Your task to perform on an android device: Go to calendar. Show me events next week Image 0: 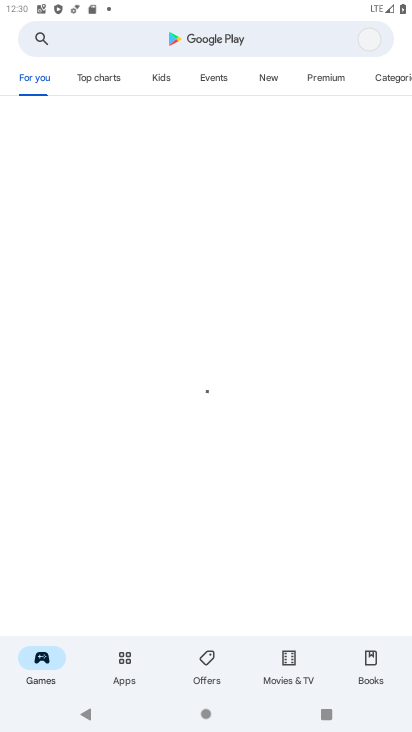
Step 0: press home button
Your task to perform on an android device: Go to calendar. Show me events next week Image 1: 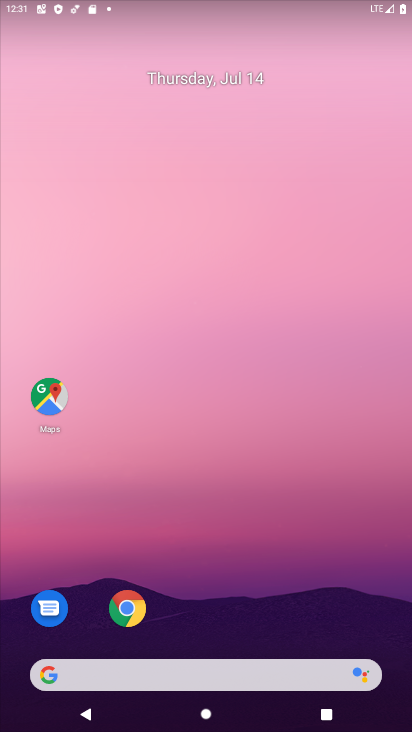
Step 1: drag from (0, 662) to (294, 49)
Your task to perform on an android device: Go to calendar. Show me events next week Image 2: 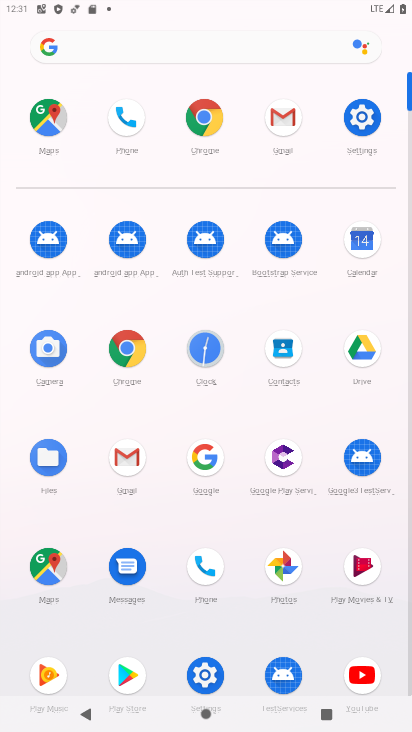
Step 2: click (368, 249)
Your task to perform on an android device: Go to calendar. Show me events next week Image 3: 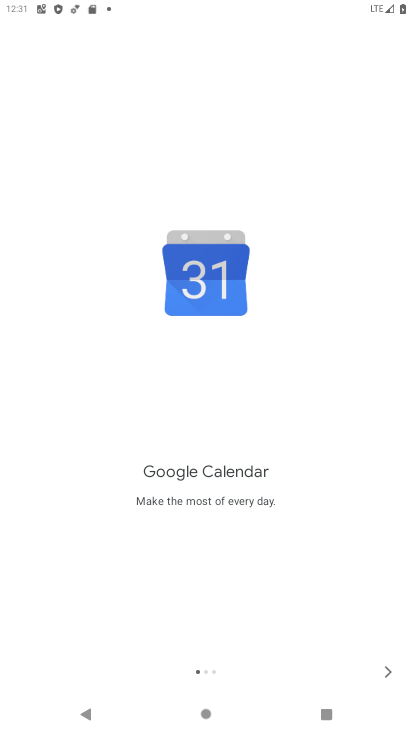
Step 3: click (384, 672)
Your task to perform on an android device: Go to calendar. Show me events next week Image 4: 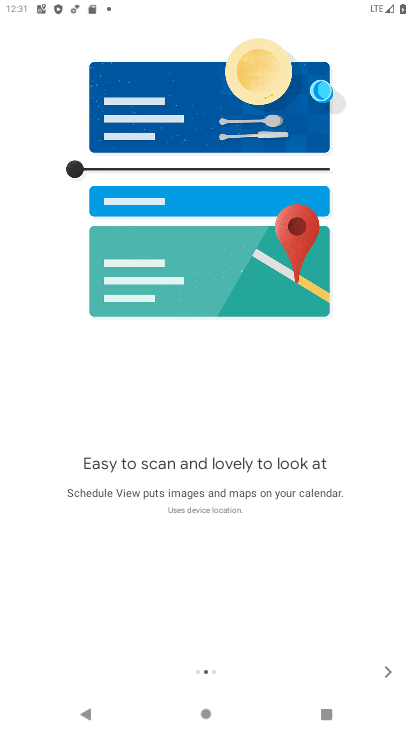
Step 4: click (384, 672)
Your task to perform on an android device: Go to calendar. Show me events next week Image 5: 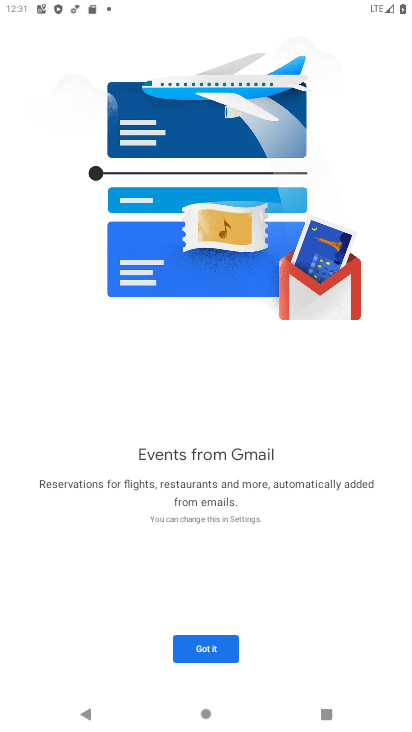
Step 5: click (225, 640)
Your task to perform on an android device: Go to calendar. Show me events next week Image 6: 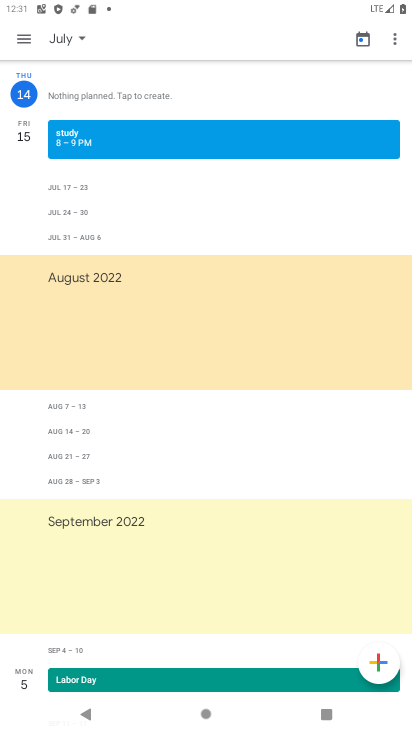
Step 6: click (82, 40)
Your task to perform on an android device: Go to calendar. Show me events next week Image 7: 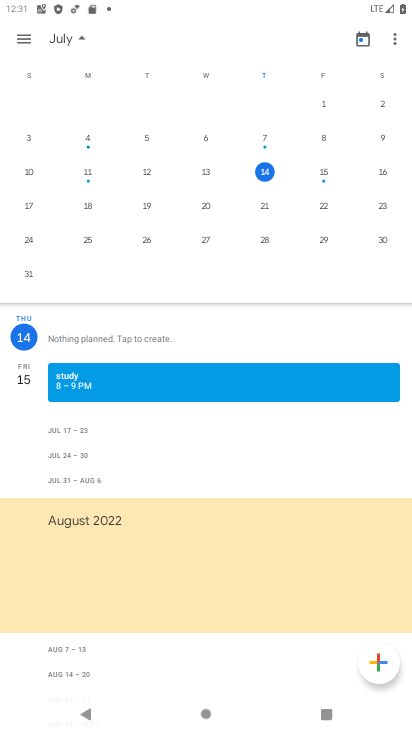
Step 7: task complete